Your task to perform on an android device: empty trash in google photos Image 0: 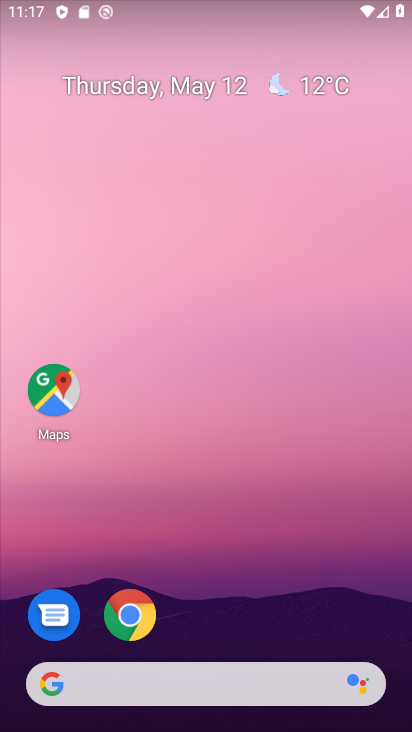
Step 0: drag from (211, 594) to (214, 183)
Your task to perform on an android device: empty trash in google photos Image 1: 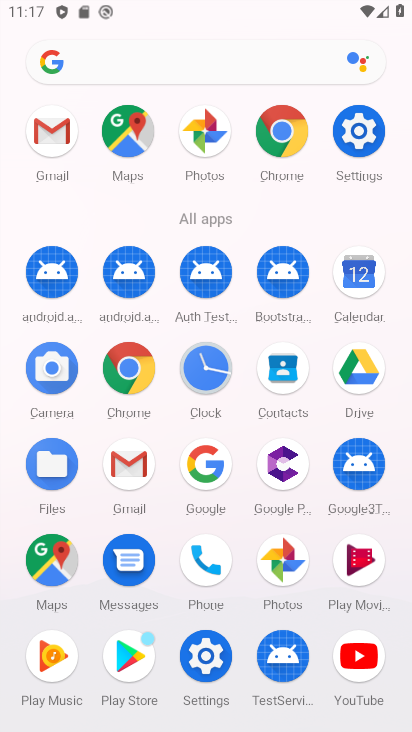
Step 1: click (215, 138)
Your task to perform on an android device: empty trash in google photos Image 2: 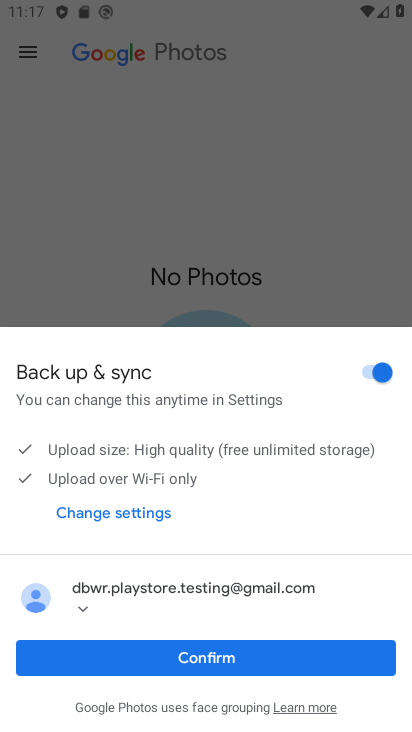
Step 2: click (246, 663)
Your task to perform on an android device: empty trash in google photos Image 3: 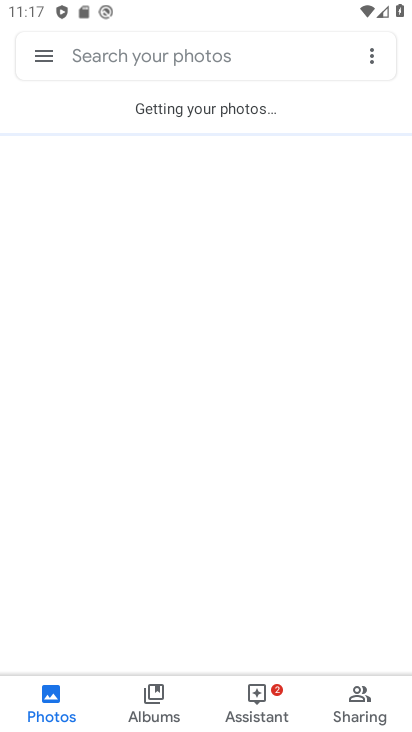
Step 3: click (45, 58)
Your task to perform on an android device: empty trash in google photos Image 4: 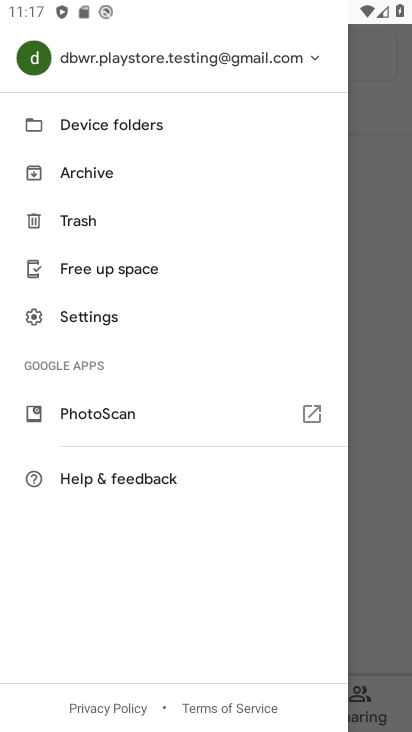
Step 4: click (92, 221)
Your task to perform on an android device: empty trash in google photos Image 5: 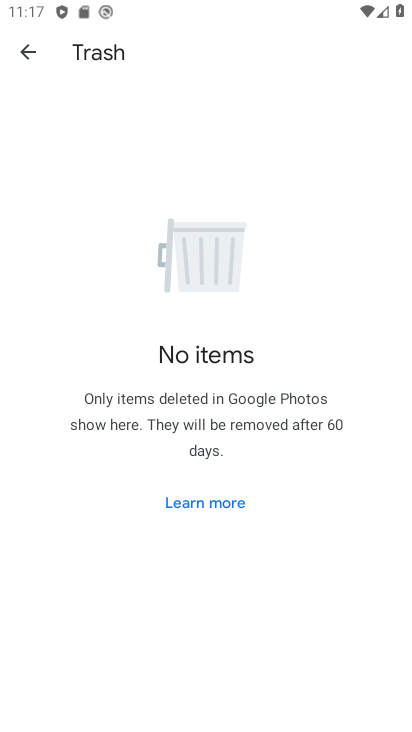
Step 5: task complete